Your task to perform on an android device: turn off location Image 0: 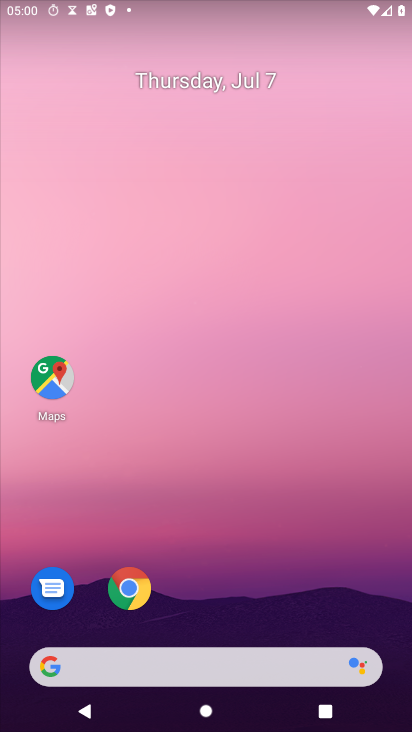
Step 0: press home button
Your task to perform on an android device: turn off location Image 1: 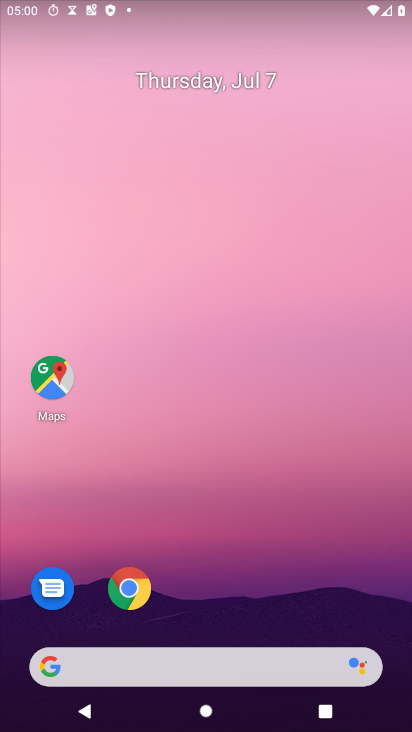
Step 1: drag from (192, 608) to (202, 233)
Your task to perform on an android device: turn off location Image 2: 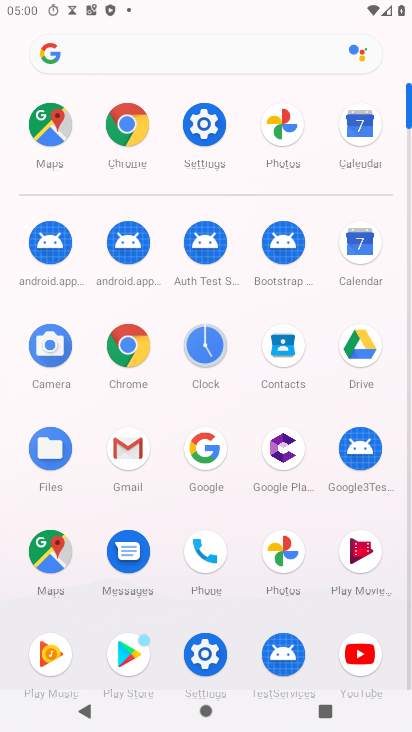
Step 2: click (191, 119)
Your task to perform on an android device: turn off location Image 3: 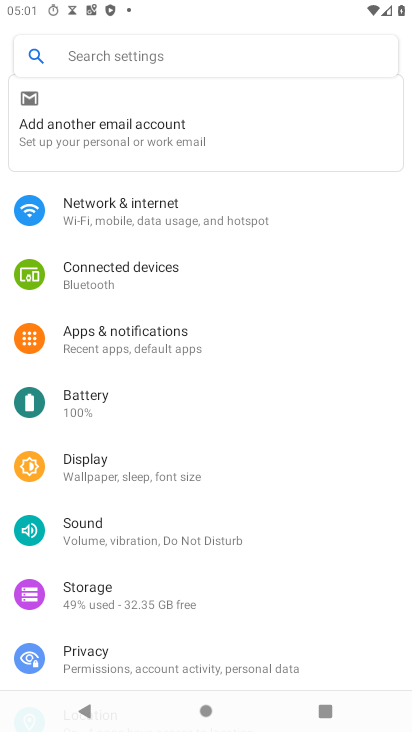
Step 3: drag from (221, 560) to (217, 214)
Your task to perform on an android device: turn off location Image 4: 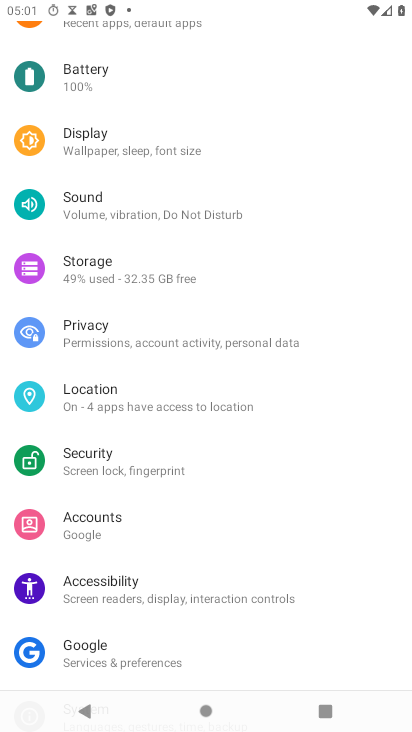
Step 4: click (91, 387)
Your task to perform on an android device: turn off location Image 5: 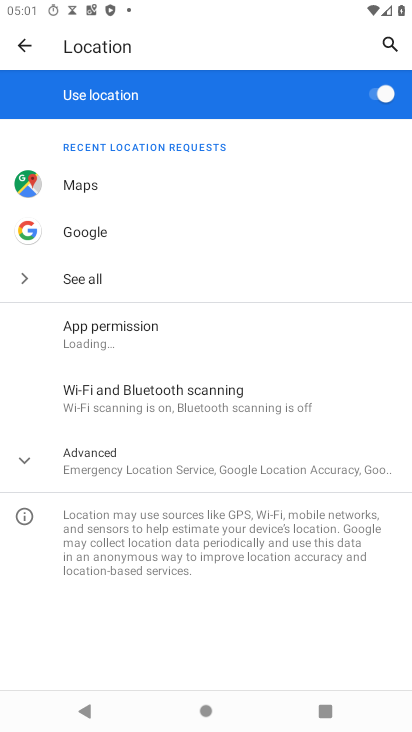
Step 5: click (391, 92)
Your task to perform on an android device: turn off location Image 6: 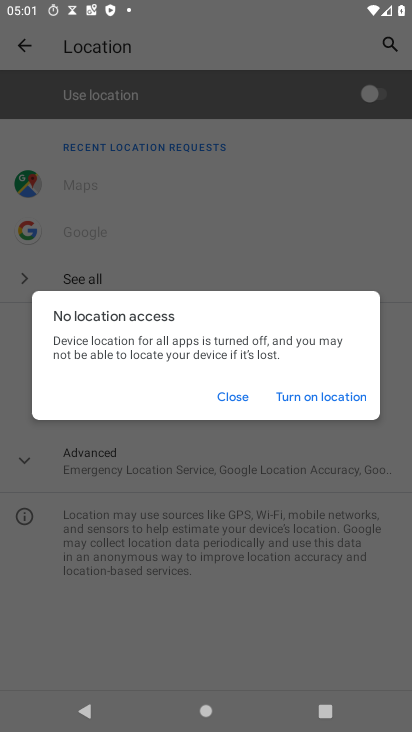
Step 6: task complete